Your task to perform on an android device: turn on bluetooth scan Image 0: 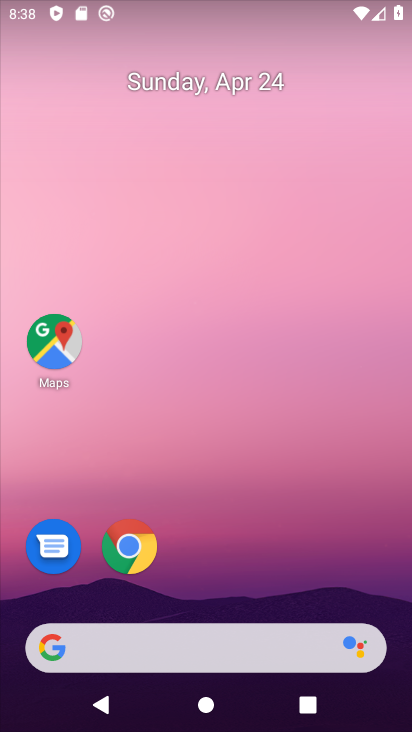
Step 0: drag from (184, 576) to (247, 165)
Your task to perform on an android device: turn on bluetooth scan Image 1: 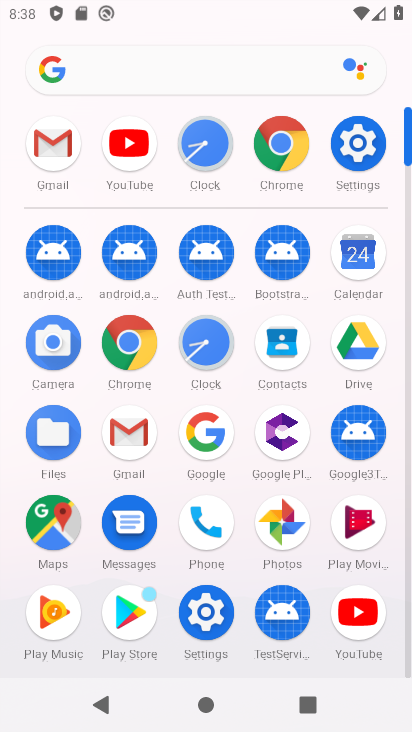
Step 1: click (372, 149)
Your task to perform on an android device: turn on bluetooth scan Image 2: 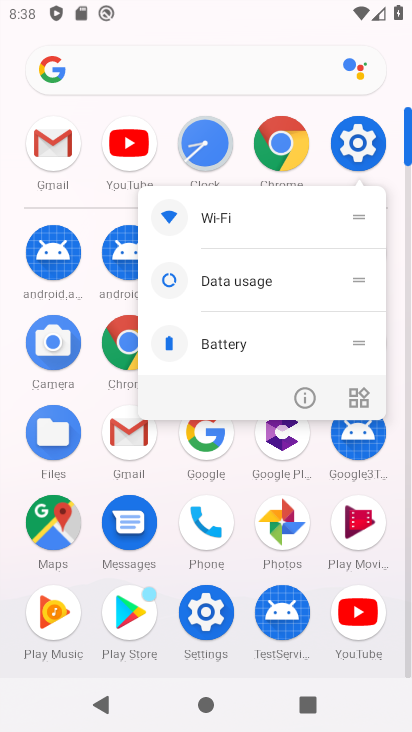
Step 2: click (372, 149)
Your task to perform on an android device: turn on bluetooth scan Image 3: 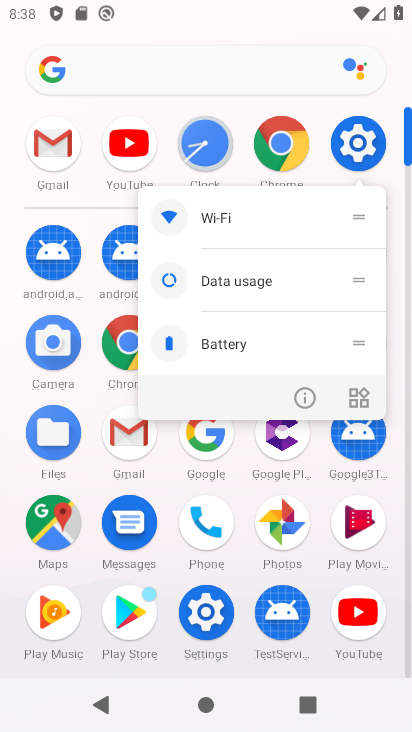
Step 3: click (372, 149)
Your task to perform on an android device: turn on bluetooth scan Image 4: 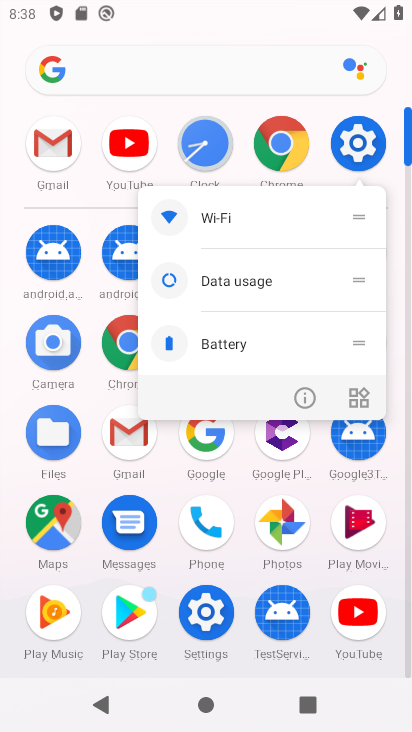
Step 4: click (372, 149)
Your task to perform on an android device: turn on bluetooth scan Image 5: 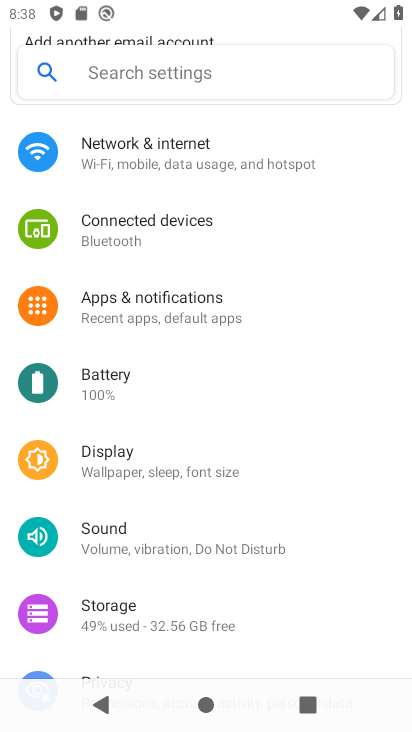
Step 5: drag from (274, 256) to (263, 55)
Your task to perform on an android device: turn on bluetooth scan Image 6: 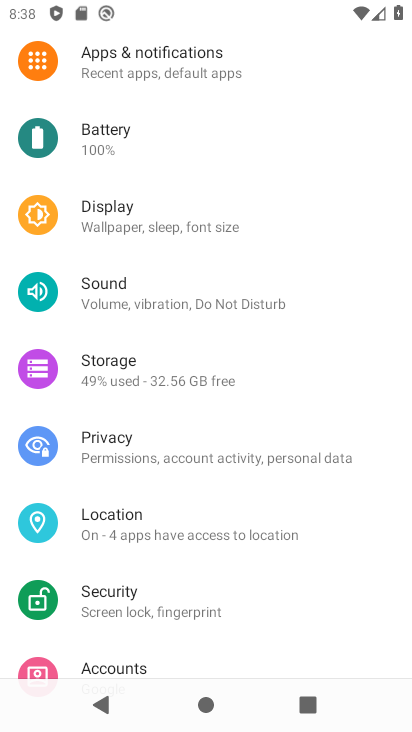
Step 6: click (230, 518)
Your task to perform on an android device: turn on bluetooth scan Image 7: 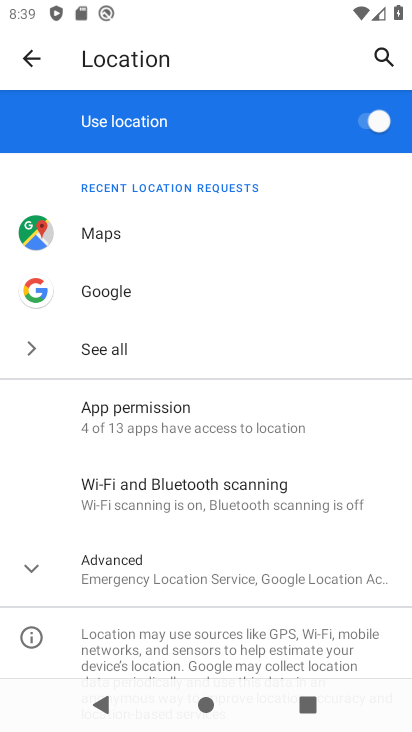
Step 7: click (153, 561)
Your task to perform on an android device: turn on bluetooth scan Image 8: 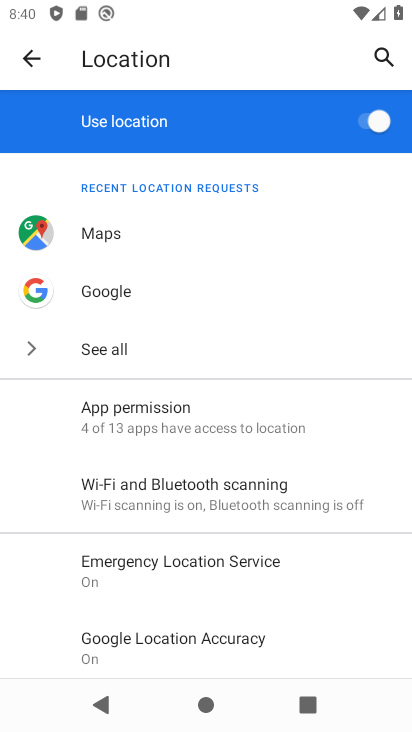
Step 8: drag from (215, 577) to (261, 236)
Your task to perform on an android device: turn on bluetooth scan Image 9: 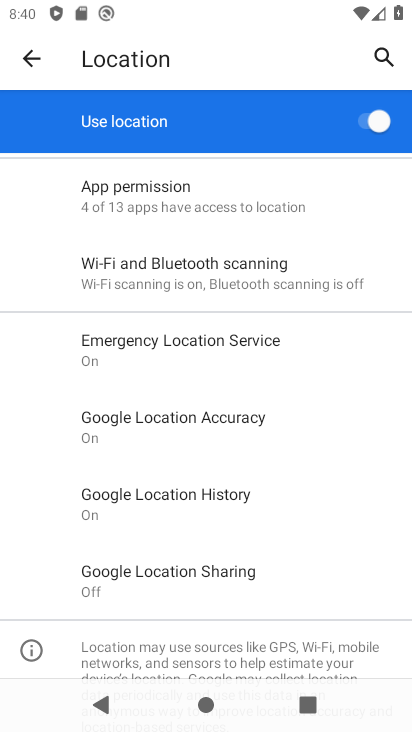
Step 9: drag from (272, 316) to (275, 397)
Your task to perform on an android device: turn on bluetooth scan Image 10: 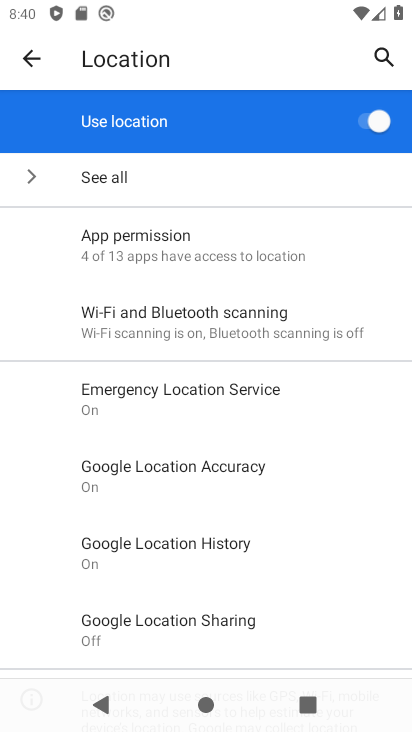
Step 10: click (257, 312)
Your task to perform on an android device: turn on bluetooth scan Image 11: 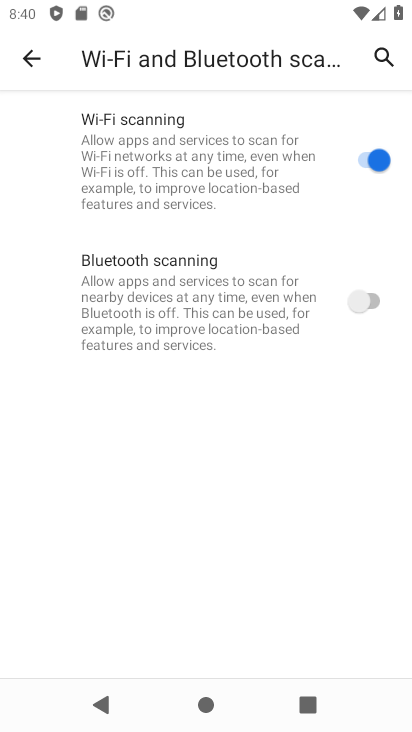
Step 11: click (364, 295)
Your task to perform on an android device: turn on bluetooth scan Image 12: 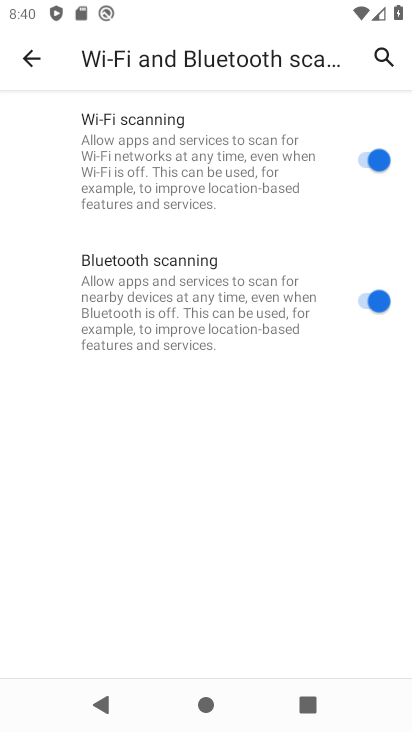
Step 12: task complete